Your task to perform on an android device: turn off data saver in the chrome app Image 0: 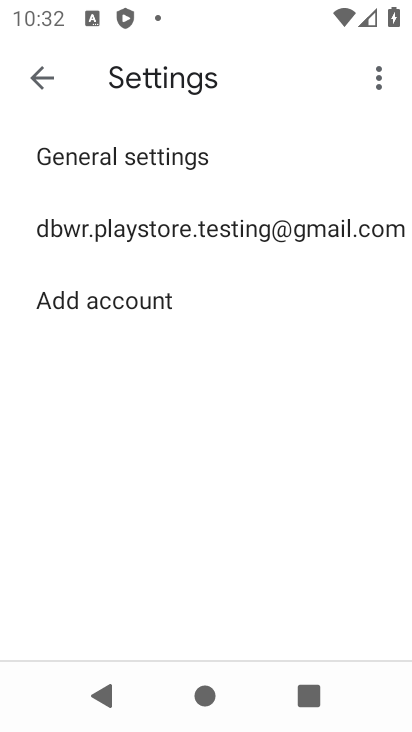
Step 0: press home button
Your task to perform on an android device: turn off data saver in the chrome app Image 1: 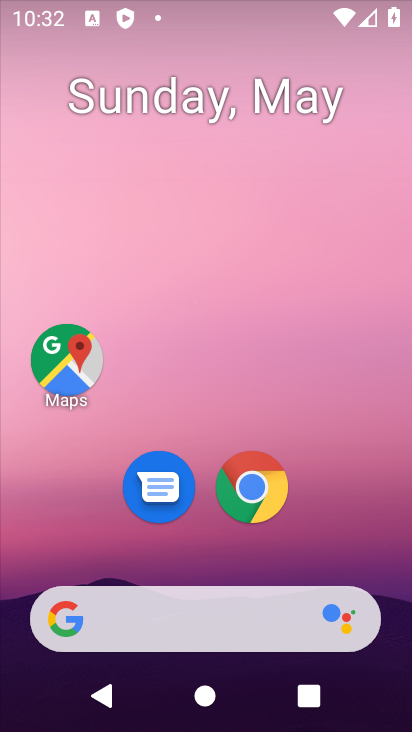
Step 1: drag from (233, 607) to (238, 206)
Your task to perform on an android device: turn off data saver in the chrome app Image 2: 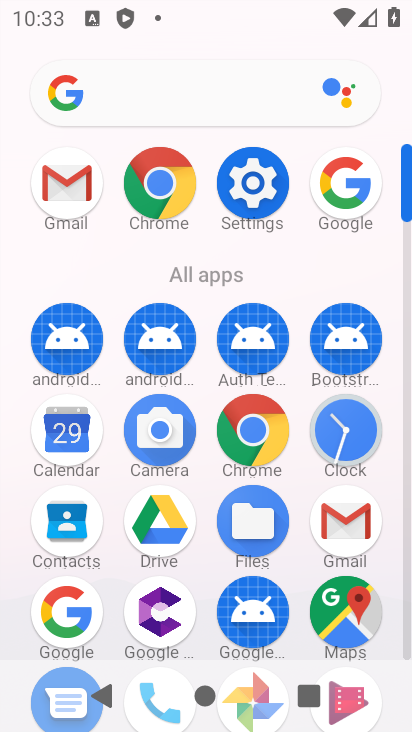
Step 2: click (169, 224)
Your task to perform on an android device: turn off data saver in the chrome app Image 3: 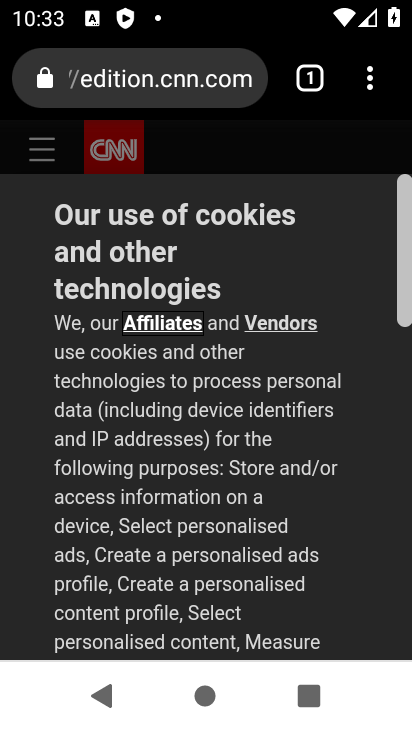
Step 3: click (378, 84)
Your task to perform on an android device: turn off data saver in the chrome app Image 4: 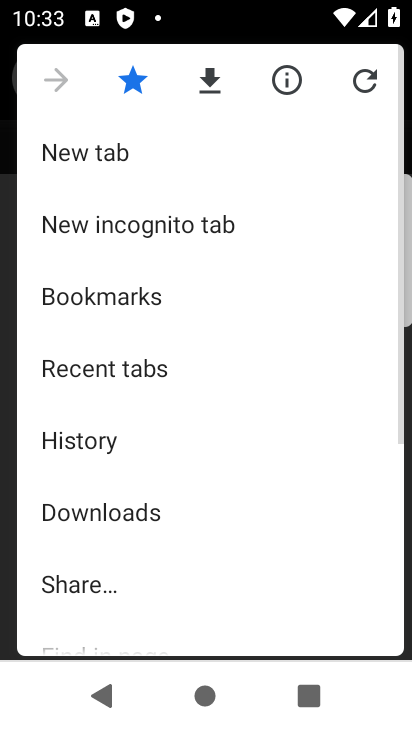
Step 4: drag from (205, 507) to (289, 57)
Your task to perform on an android device: turn off data saver in the chrome app Image 5: 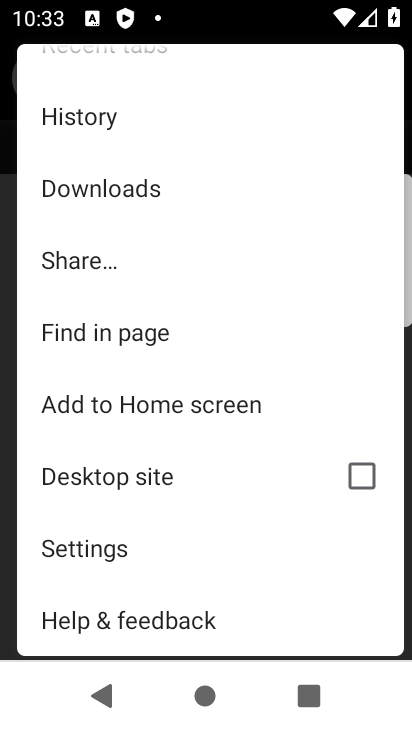
Step 5: click (113, 563)
Your task to perform on an android device: turn off data saver in the chrome app Image 6: 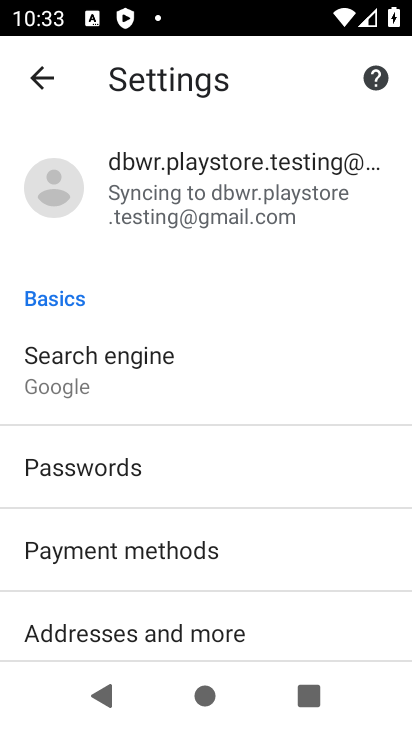
Step 6: drag from (154, 606) to (224, 266)
Your task to perform on an android device: turn off data saver in the chrome app Image 7: 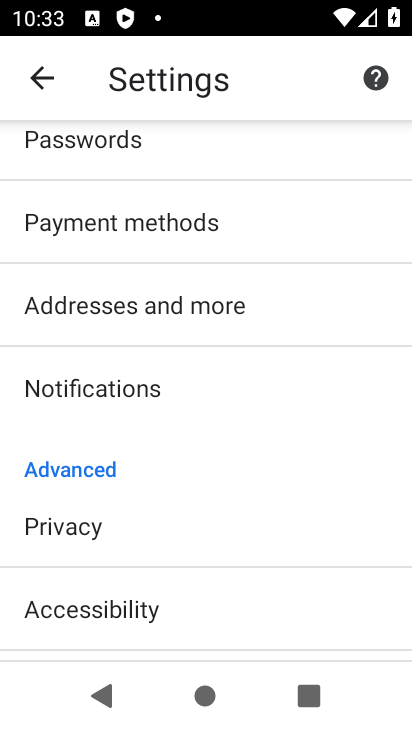
Step 7: drag from (169, 551) to (245, 283)
Your task to perform on an android device: turn off data saver in the chrome app Image 8: 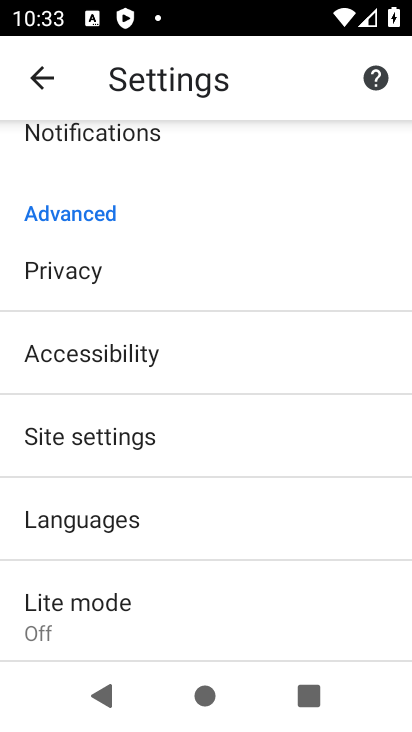
Step 8: drag from (167, 557) to (210, 353)
Your task to perform on an android device: turn off data saver in the chrome app Image 9: 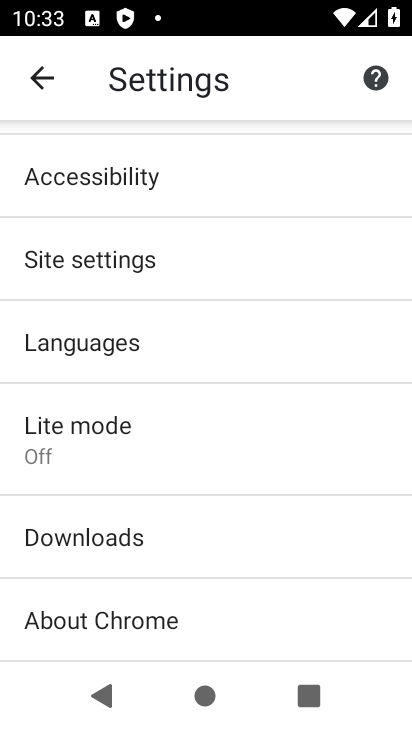
Step 9: click (135, 431)
Your task to perform on an android device: turn off data saver in the chrome app Image 10: 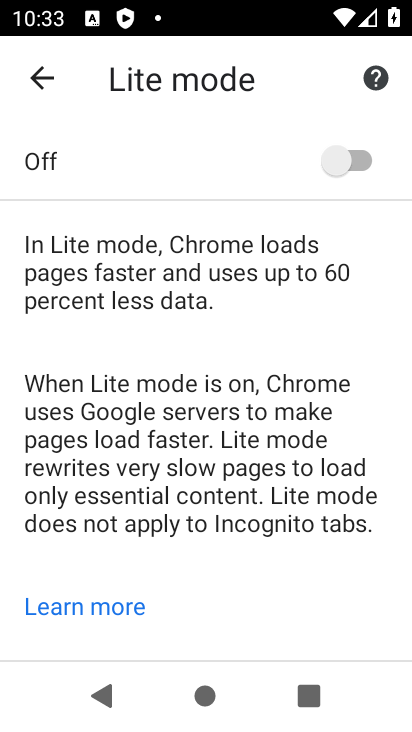
Step 10: task complete